Your task to perform on an android device: turn off priority inbox in the gmail app Image 0: 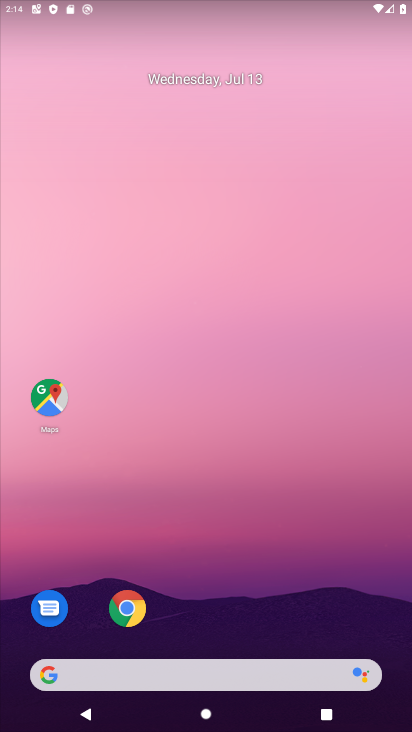
Step 0: drag from (200, 422) to (213, 237)
Your task to perform on an android device: turn off priority inbox in the gmail app Image 1: 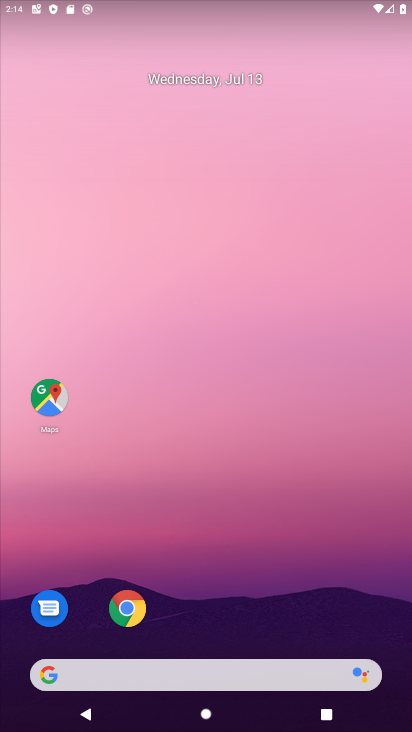
Step 1: drag from (202, 401) to (209, 174)
Your task to perform on an android device: turn off priority inbox in the gmail app Image 2: 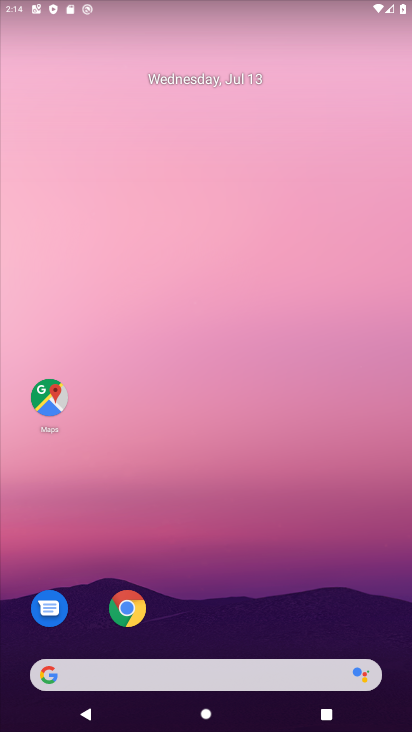
Step 2: drag from (166, 532) to (175, 66)
Your task to perform on an android device: turn off priority inbox in the gmail app Image 3: 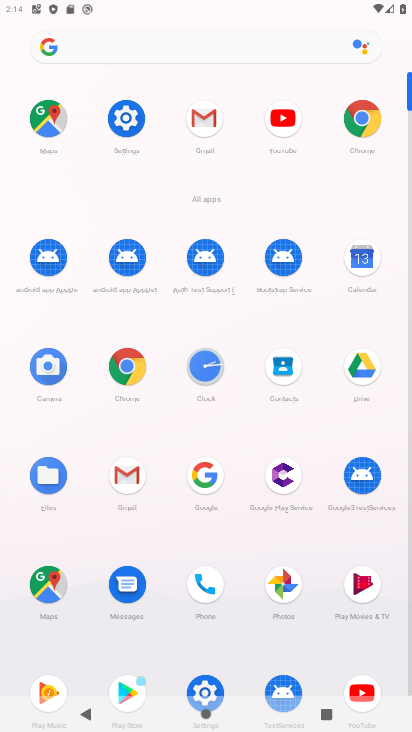
Step 3: click (212, 123)
Your task to perform on an android device: turn off priority inbox in the gmail app Image 4: 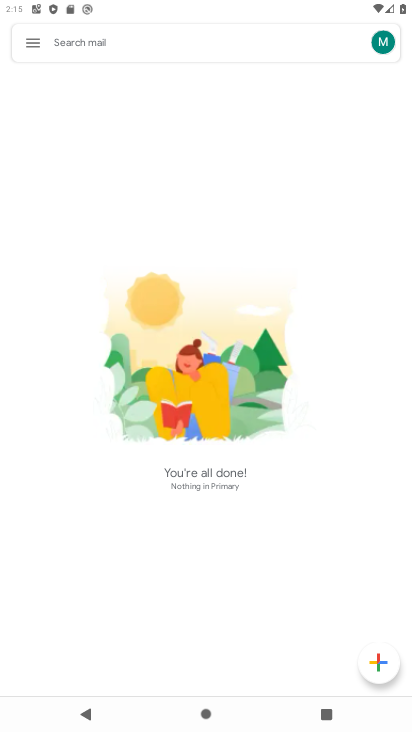
Step 4: click (28, 39)
Your task to perform on an android device: turn off priority inbox in the gmail app Image 5: 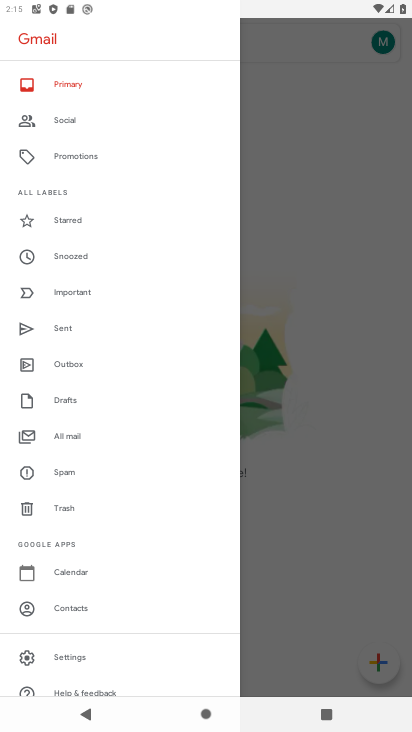
Step 5: click (79, 653)
Your task to perform on an android device: turn off priority inbox in the gmail app Image 6: 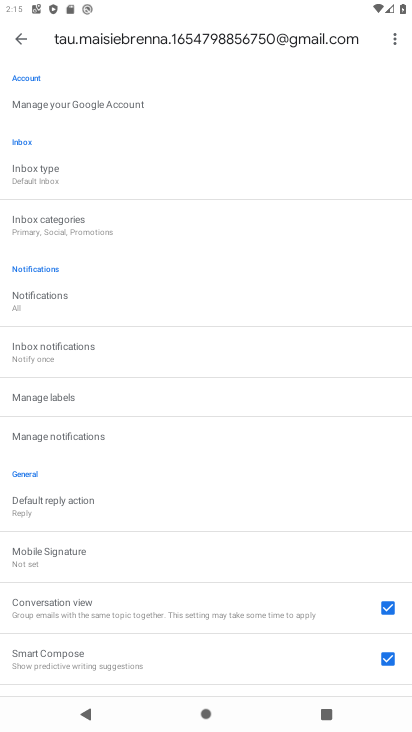
Step 6: click (35, 170)
Your task to perform on an android device: turn off priority inbox in the gmail app Image 7: 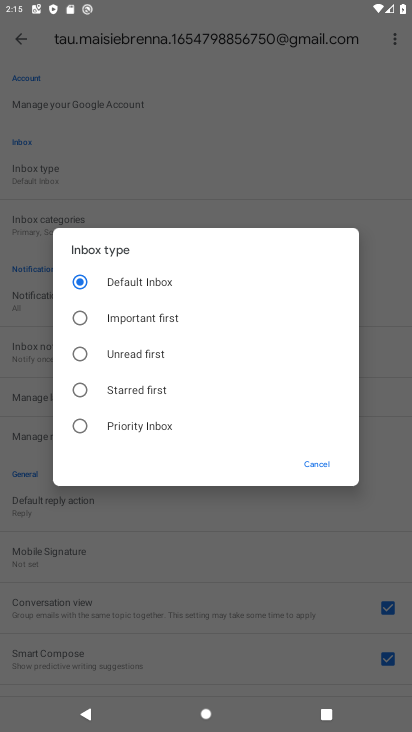
Step 7: task complete